Your task to perform on an android device: Go to network settings Image 0: 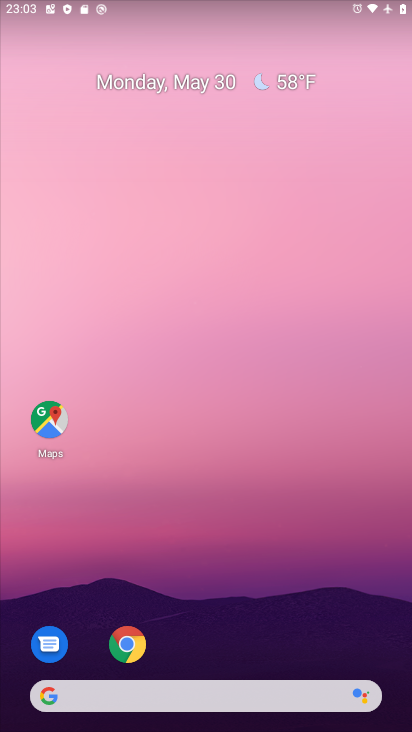
Step 0: drag from (341, 630) to (328, 160)
Your task to perform on an android device: Go to network settings Image 1: 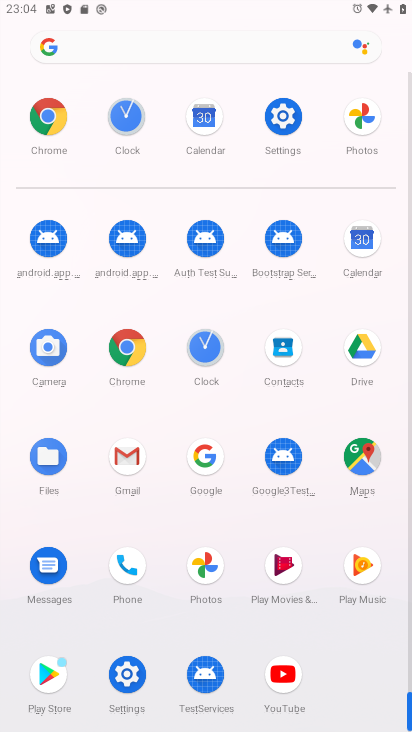
Step 1: click (130, 674)
Your task to perform on an android device: Go to network settings Image 2: 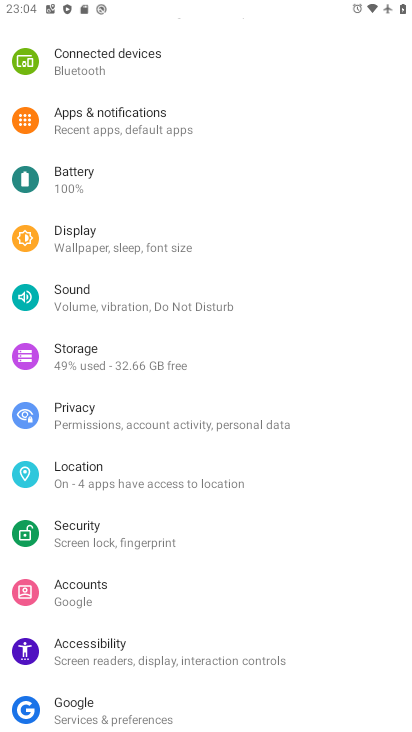
Step 2: drag from (204, 130) to (246, 386)
Your task to perform on an android device: Go to network settings Image 3: 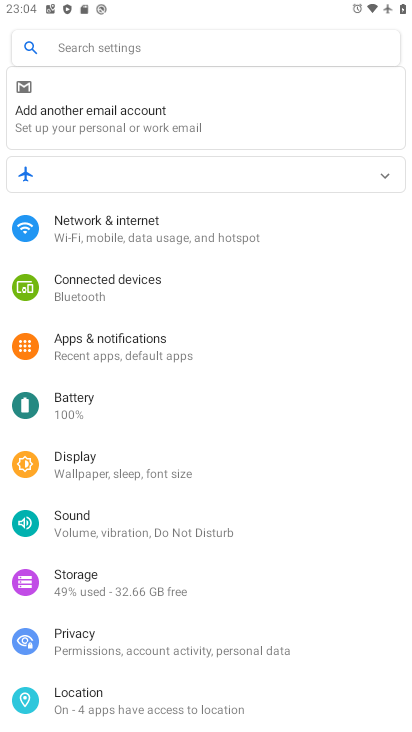
Step 3: click (99, 233)
Your task to perform on an android device: Go to network settings Image 4: 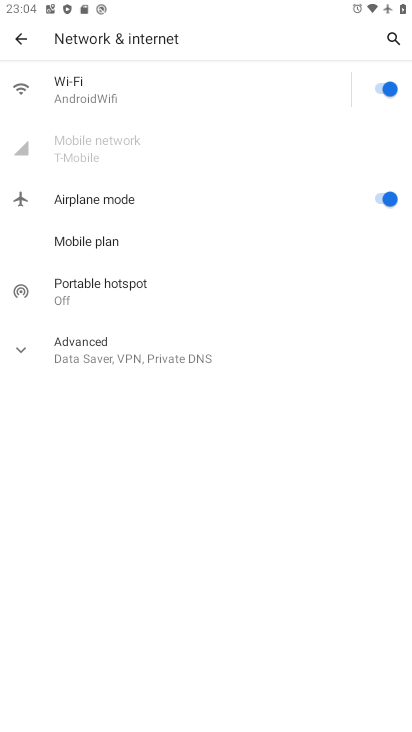
Step 4: task complete